Your task to perform on an android device: change notifications settings Image 0: 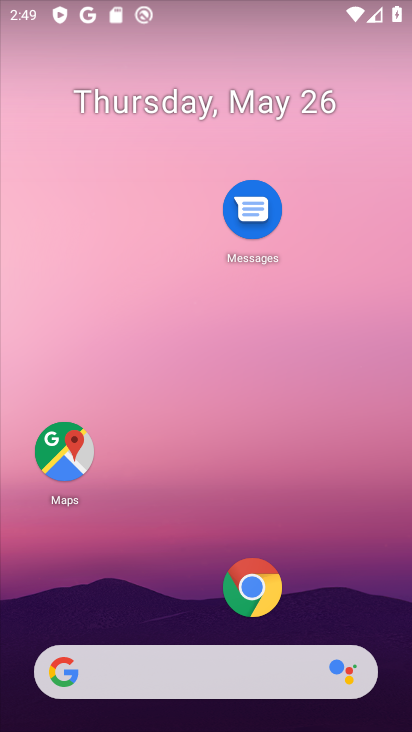
Step 0: drag from (175, 622) to (192, 316)
Your task to perform on an android device: change notifications settings Image 1: 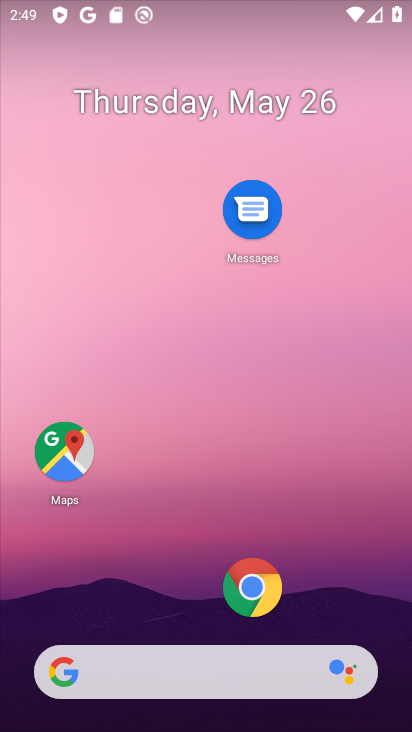
Step 1: drag from (156, 586) to (206, 87)
Your task to perform on an android device: change notifications settings Image 2: 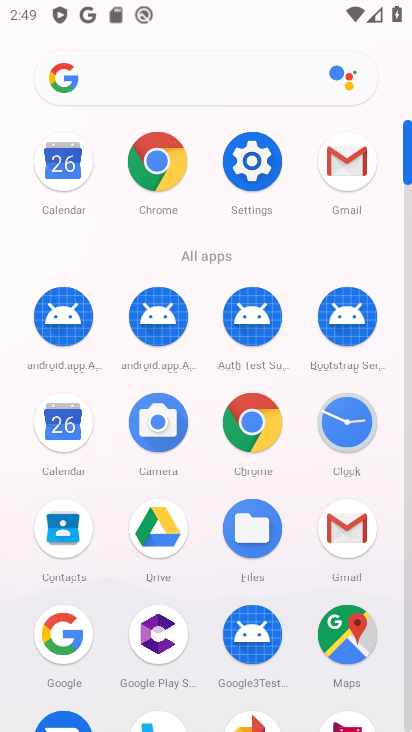
Step 2: drag from (216, 630) to (253, 192)
Your task to perform on an android device: change notifications settings Image 3: 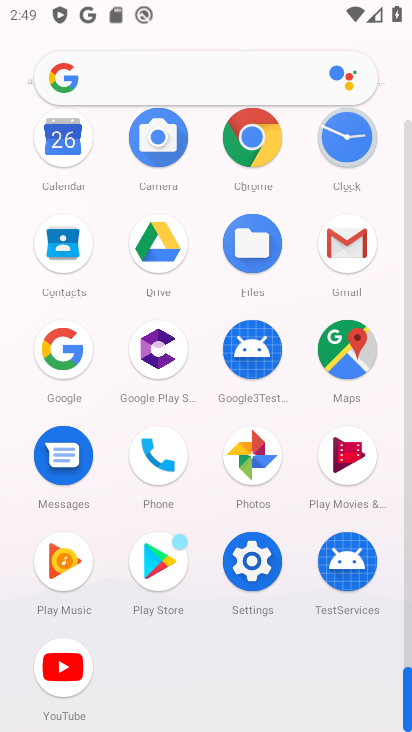
Step 3: click (260, 558)
Your task to perform on an android device: change notifications settings Image 4: 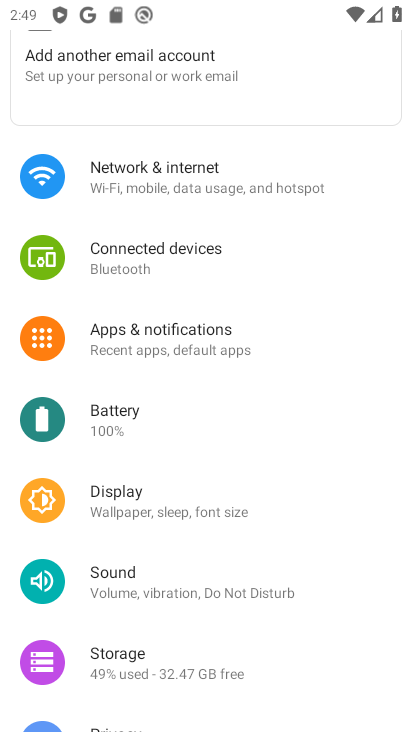
Step 4: click (209, 331)
Your task to perform on an android device: change notifications settings Image 5: 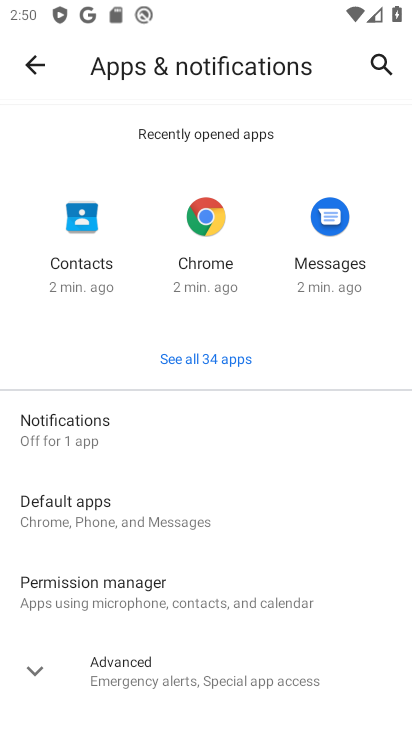
Step 5: click (123, 427)
Your task to perform on an android device: change notifications settings Image 6: 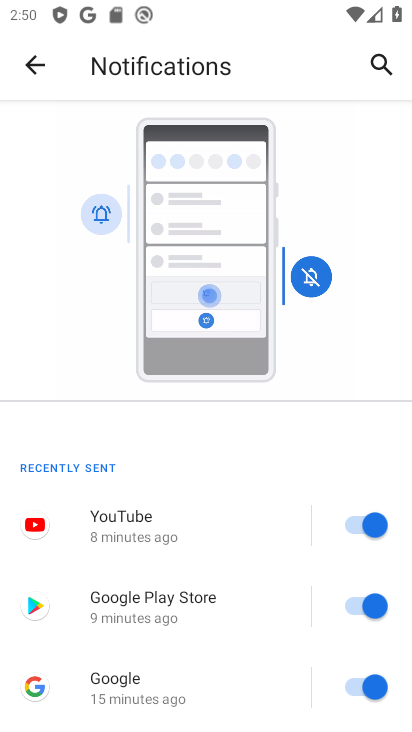
Step 6: drag from (160, 550) to (199, 227)
Your task to perform on an android device: change notifications settings Image 7: 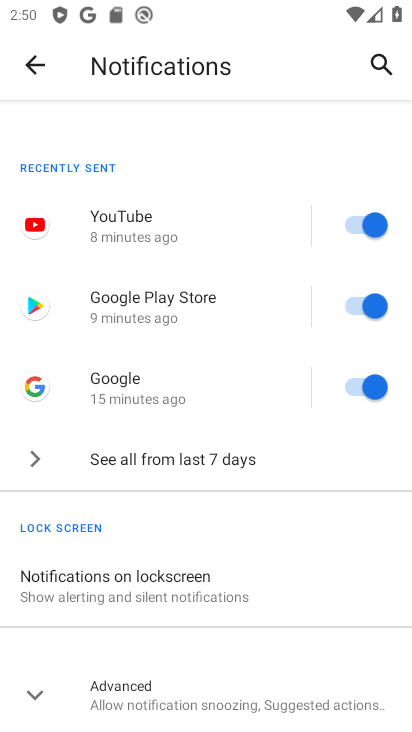
Step 7: click (214, 455)
Your task to perform on an android device: change notifications settings Image 8: 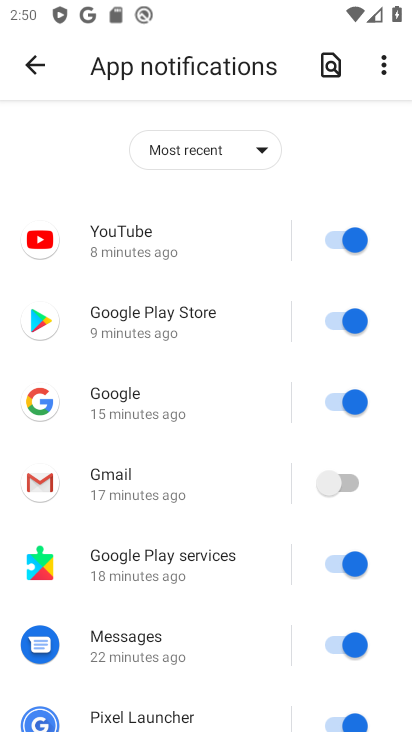
Step 8: click (338, 240)
Your task to perform on an android device: change notifications settings Image 9: 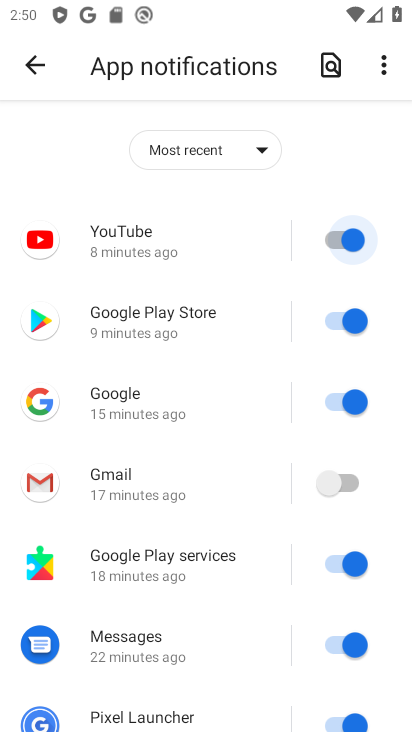
Step 9: click (330, 307)
Your task to perform on an android device: change notifications settings Image 10: 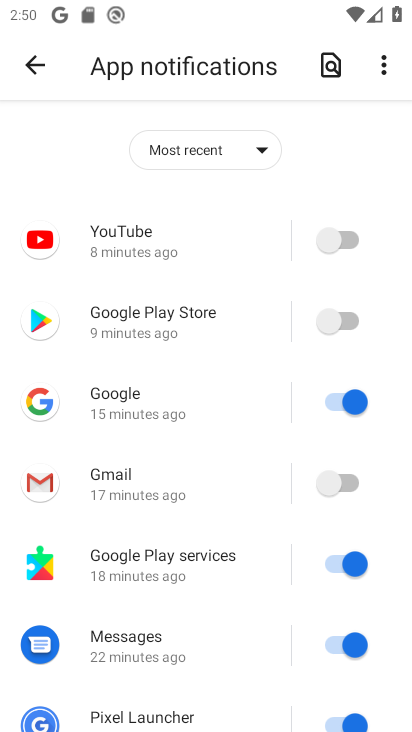
Step 10: click (326, 346)
Your task to perform on an android device: change notifications settings Image 11: 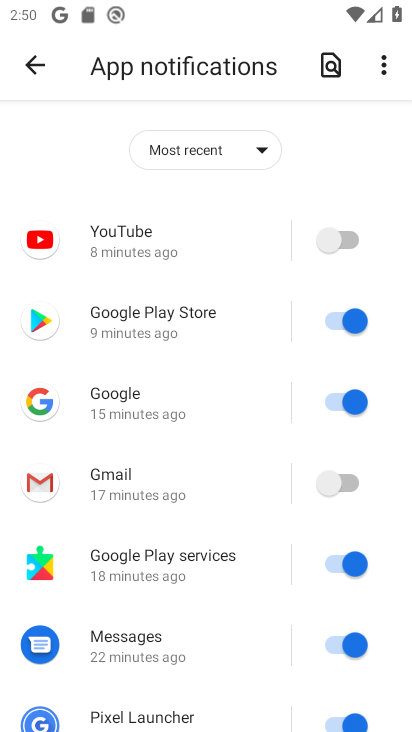
Step 11: click (326, 325)
Your task to perform on an android device: change notifications settings Image 12: 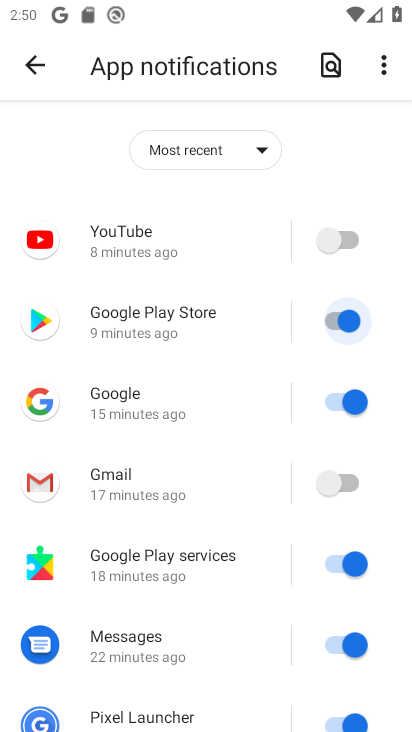
Step 12: click (329, 404)
Your task to perform on an android device: change notifications settings Image 13: 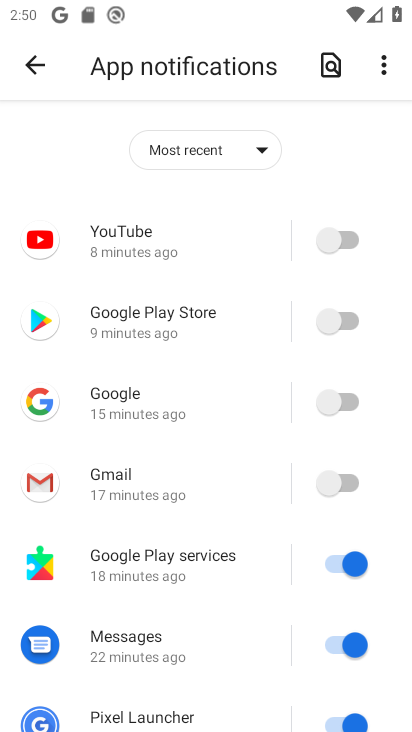
Step 13: drag from (292, 602) to (335, 300)
Your task to perform on an android device: change notifications settings Image 14: 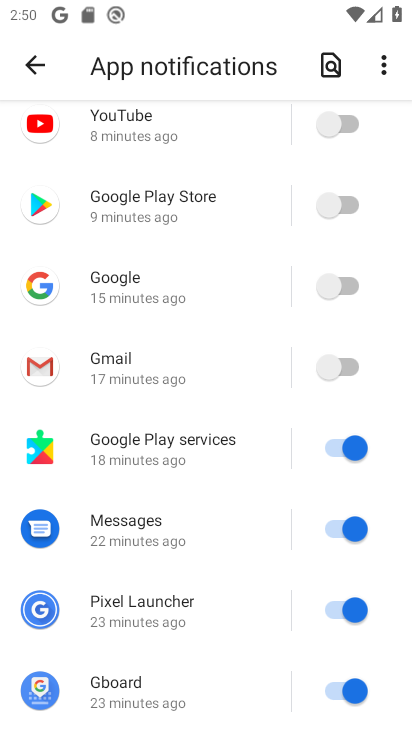
Step 14: click (324, 436)
Your task to perform on an android device: change notifications settings Image 15: 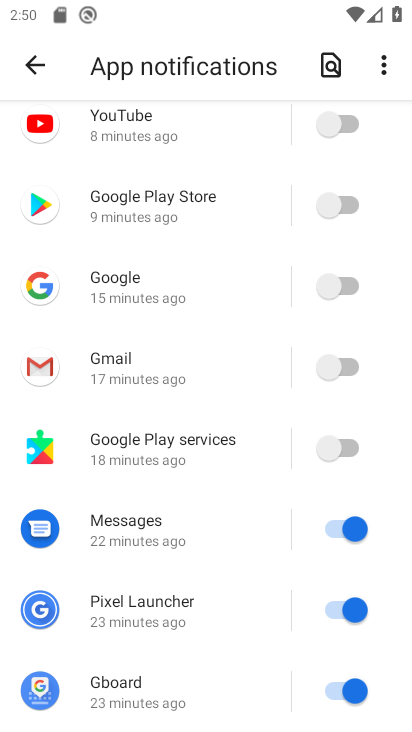
Step 15: click (335, 530)
Your task to perform on an android device: change notifications settings Image 16: 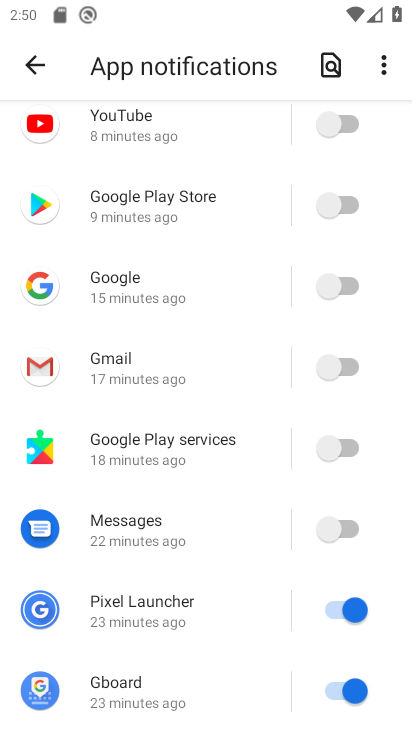
Step 16: click (339, 599)
Your task to perform on an android device: change notifications settings Image 17: 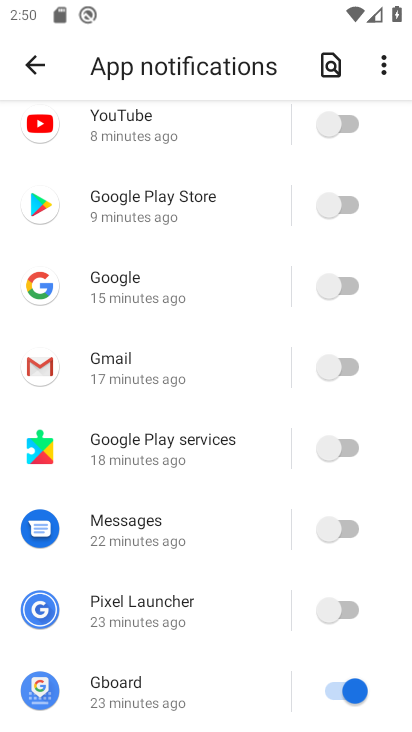
Step 17: click (314, 693)
Your task to perform on an android device: change notifications settings Image 18: 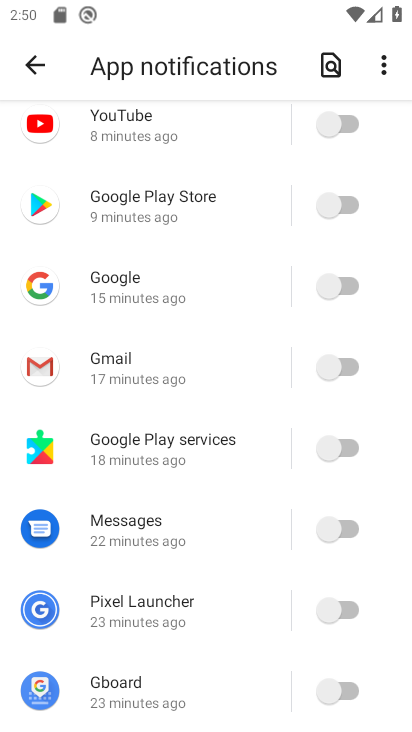
Step 18: task complete